Your task to perform on an android device: Search for "amazon basics triple a" on ebay, select the first entry, and add it to the cart. Image 0: 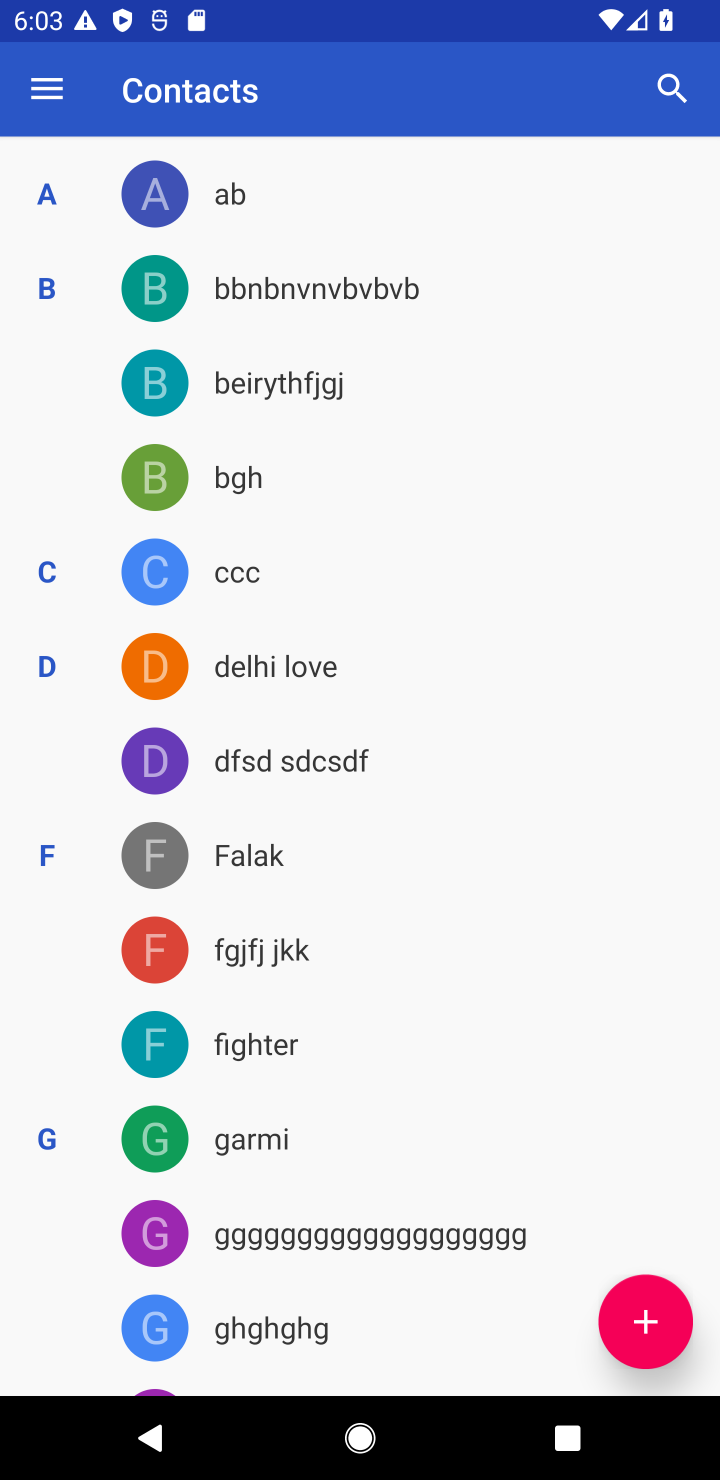
Step 0: press home button
Your task to perform on an android device: Search for "amazon basics triple a" on ebay, select the first entry, and add it to the cart. Image 1: 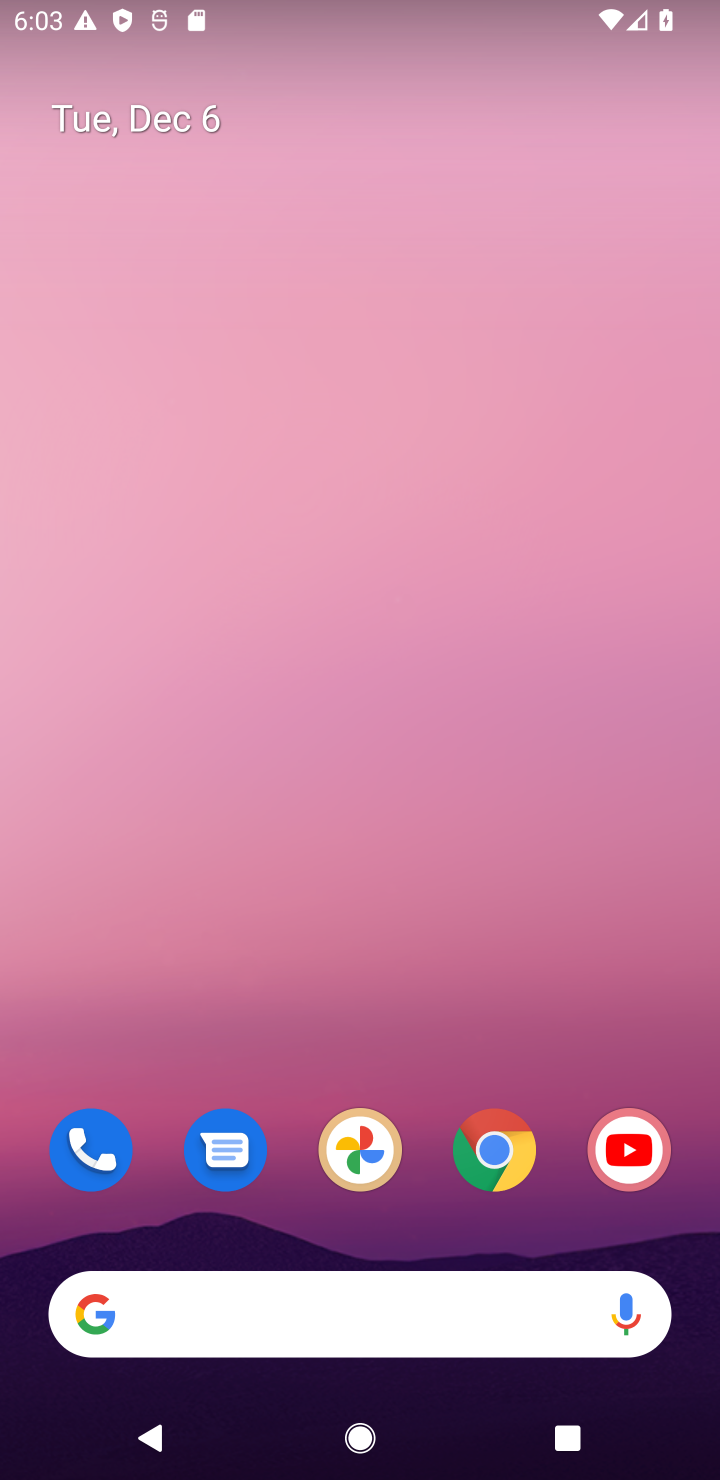
Step 1: click (478, 1157)
Your task to perform on an android device: Search for "amazon basics triple a" on ebay, select the first entry, and add it to the cart. Image 2: 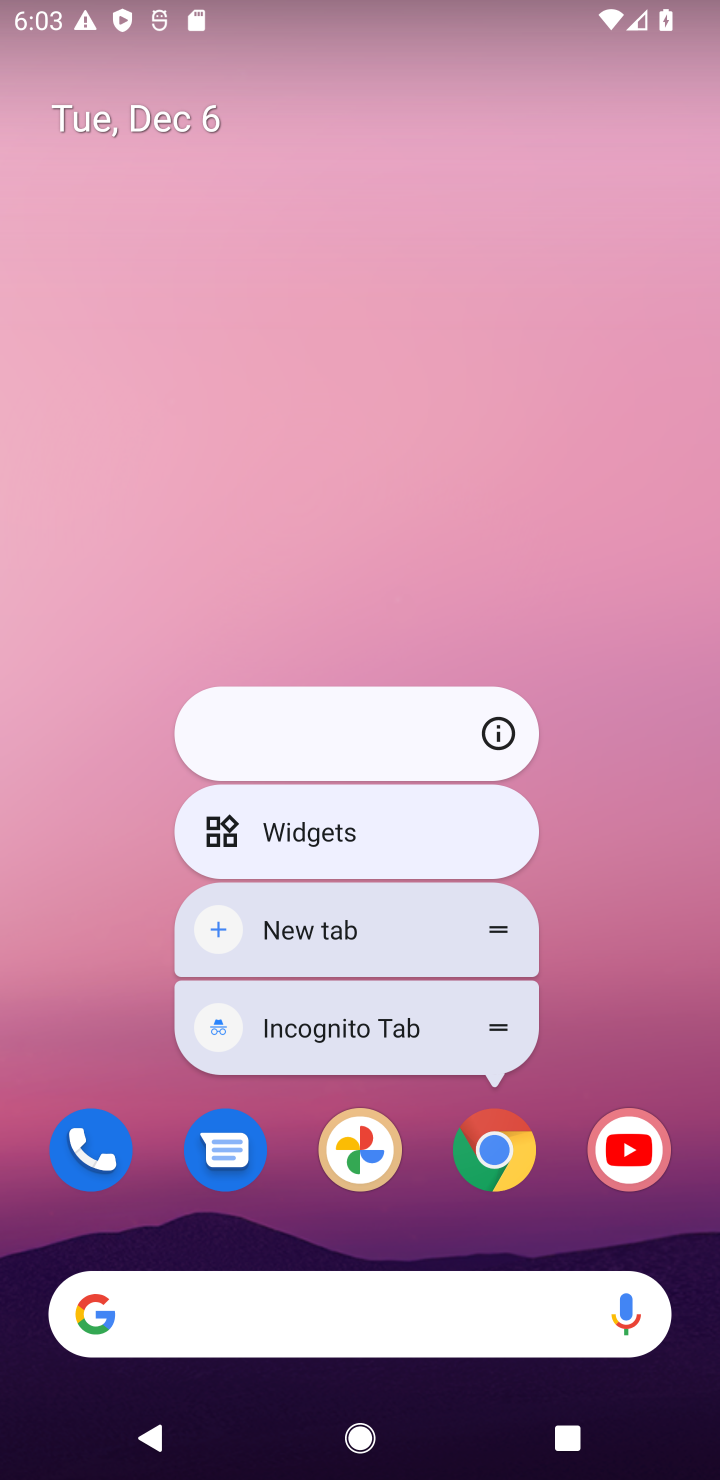
Step 2: click (492, 1162)
Your task to perform on an android device: Search for "amazon basics triple a" on ebay, select the first entry, and add it to the cart. Image 3: 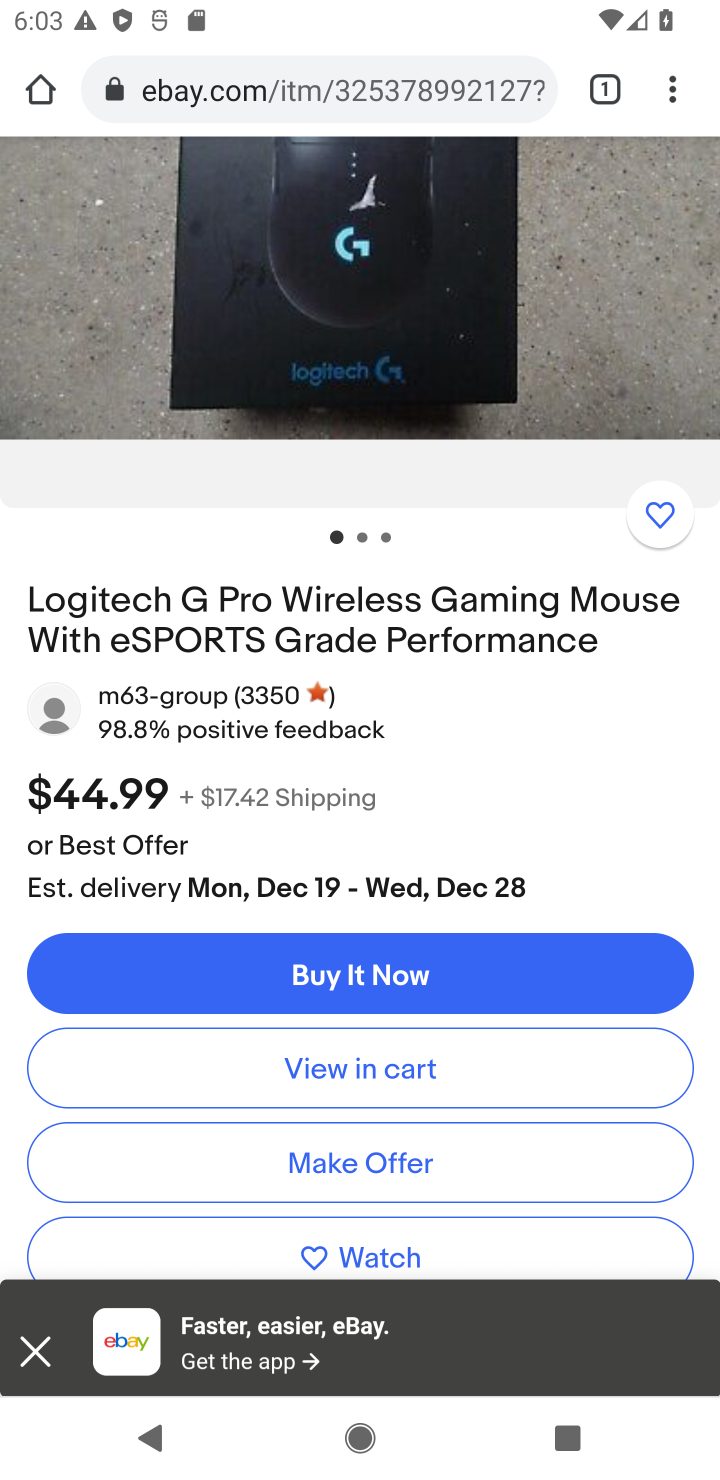
Step 3: drag from (513, 964) to (515, 1089)
Your task to perform on an android device: Search for "amazon basics triple a" on ebay, select the first entry, and add it to the cart. Image 4: 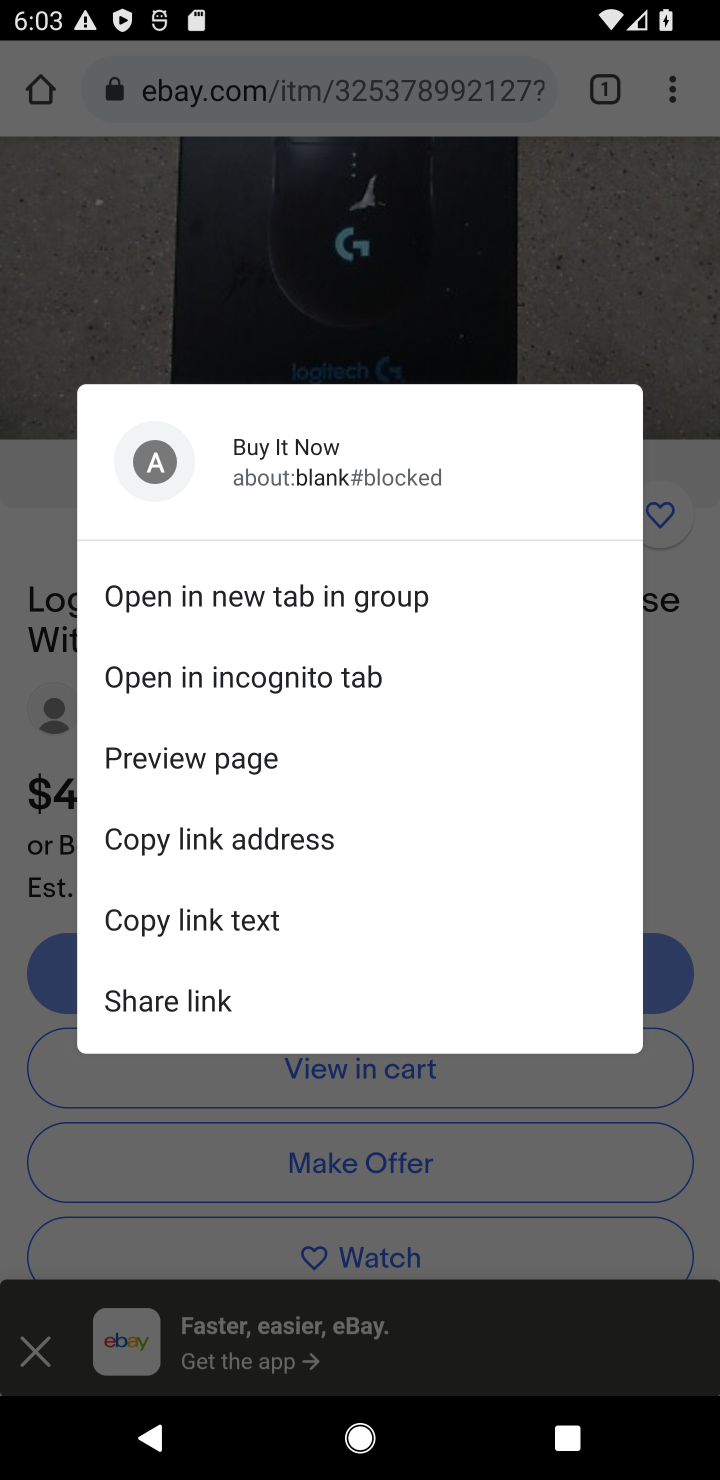
Step 4: drag from (650, 297) to (719, 739)
Your task to perform on an android device: Search for "amazon basics triple a" on ebay, select the first entry, and add it to the cart. Image 5: 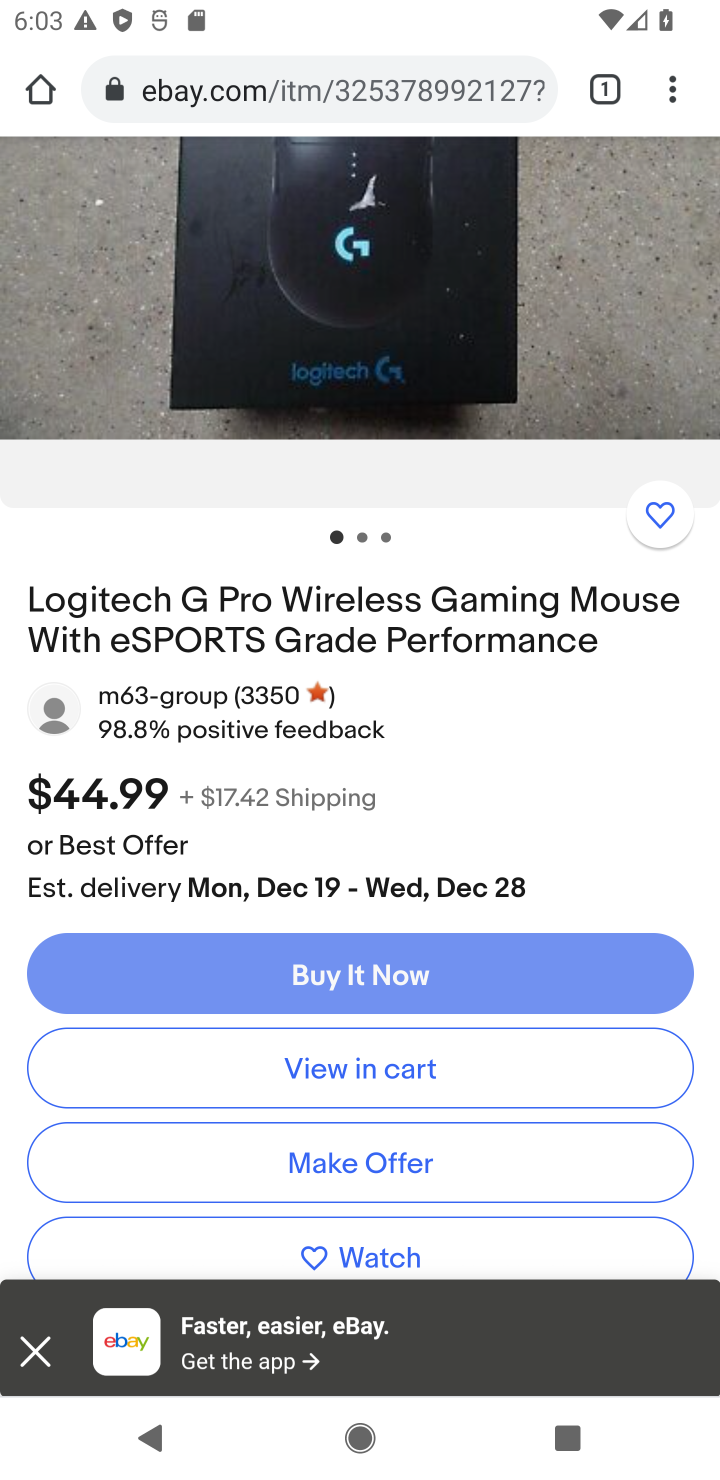
Step 5: drag from (549, 379) to (471, 858)
Your task to perform on an android device: Search for "amazon basics triple a" on ebay, select the first entry, and add it to the cart. Image 6: 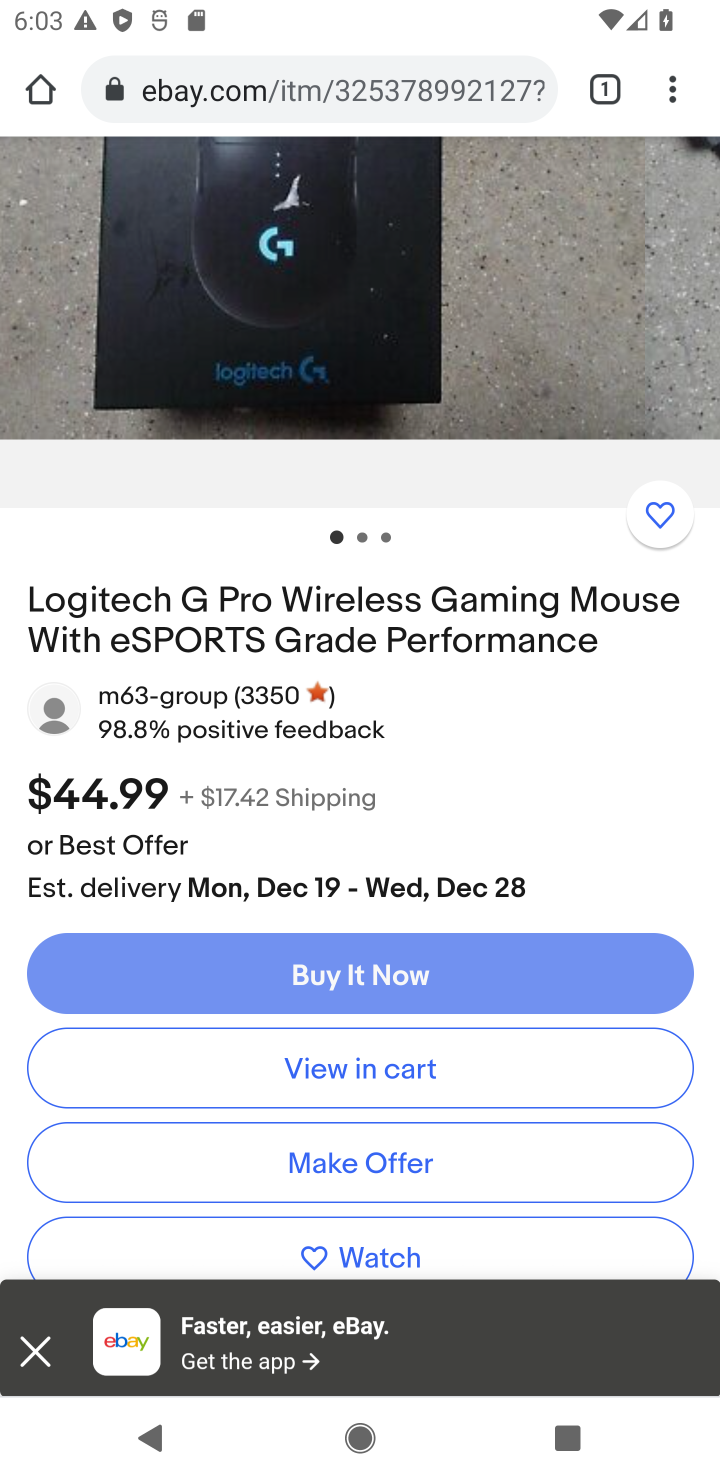
Step 6: drag from (485, 461) to (527, 1083)
Your task to perform on an android device: Search for "amazon basics triple a" on ebay, select the first entry, and add it to the cart. Image 7: 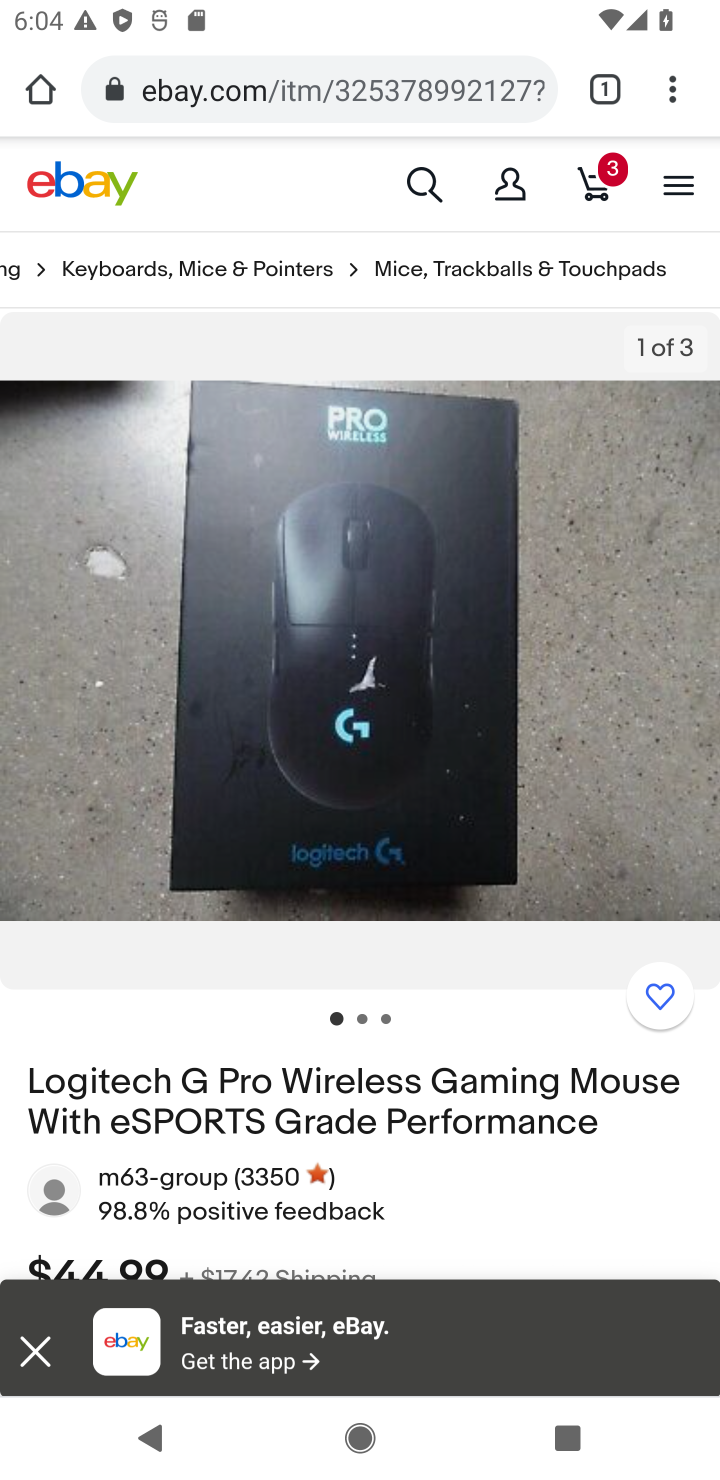
Step 7: click (413, 190)
Your task to perform on an android device: Search for "amazon basics triple a" on ebay, select the first entry, and add it to the cart. Image 8: 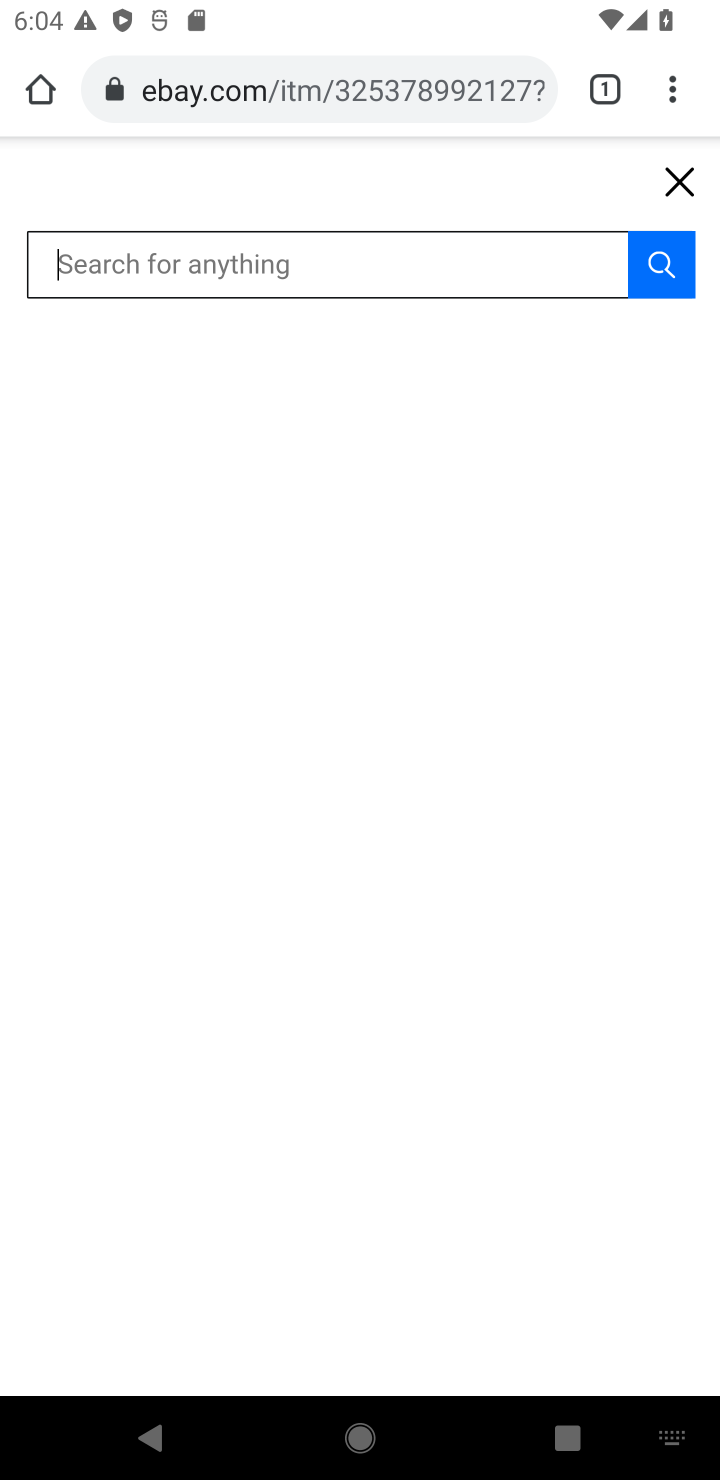
Step 8: type "amazon basics triple a"
Your task to perform on an android device: Search for "amazon basics triple a" on ebay, select the first entry, and add it to the cart. Image 9: 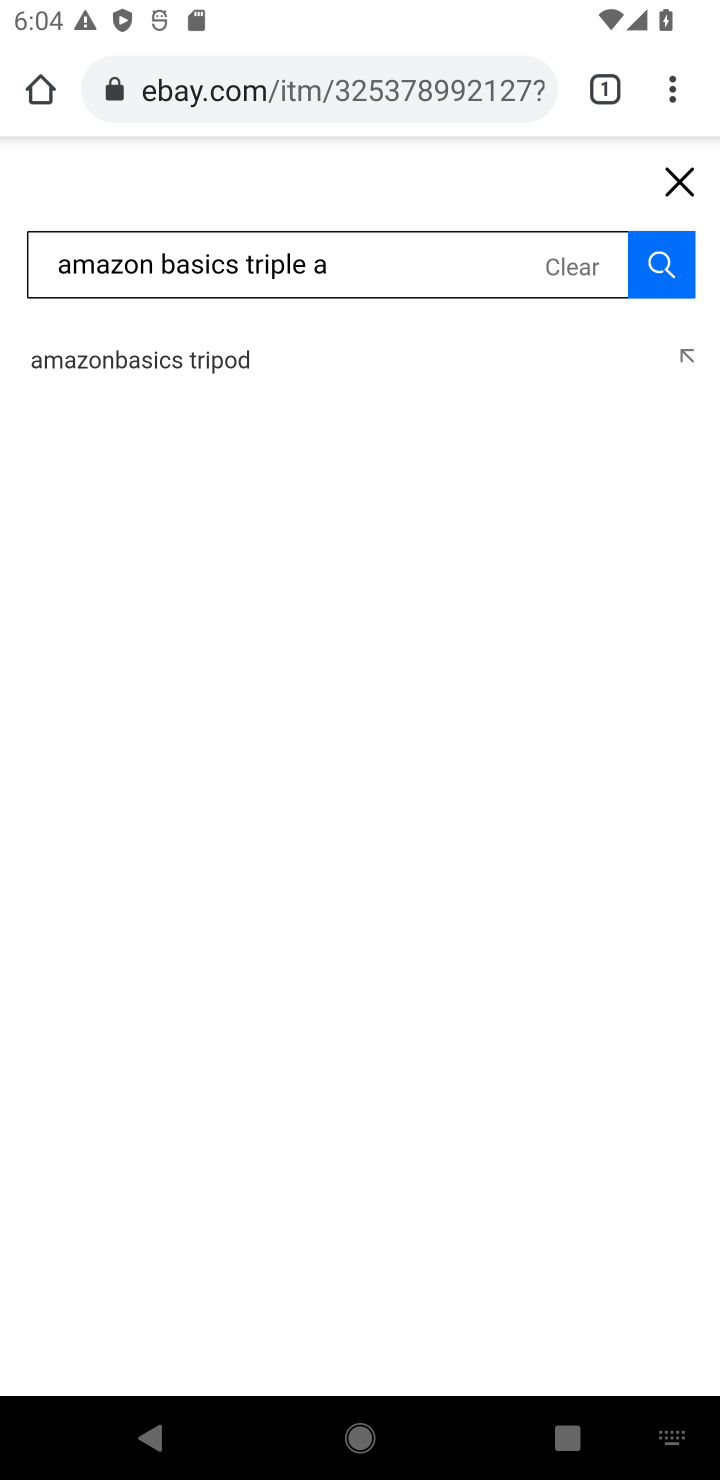
Step 9: click (656, 270)
Your task to perform on an android device: Search for "amazon basics triple a" on ebay, select the first entry, and add it to the cart. Image 10: 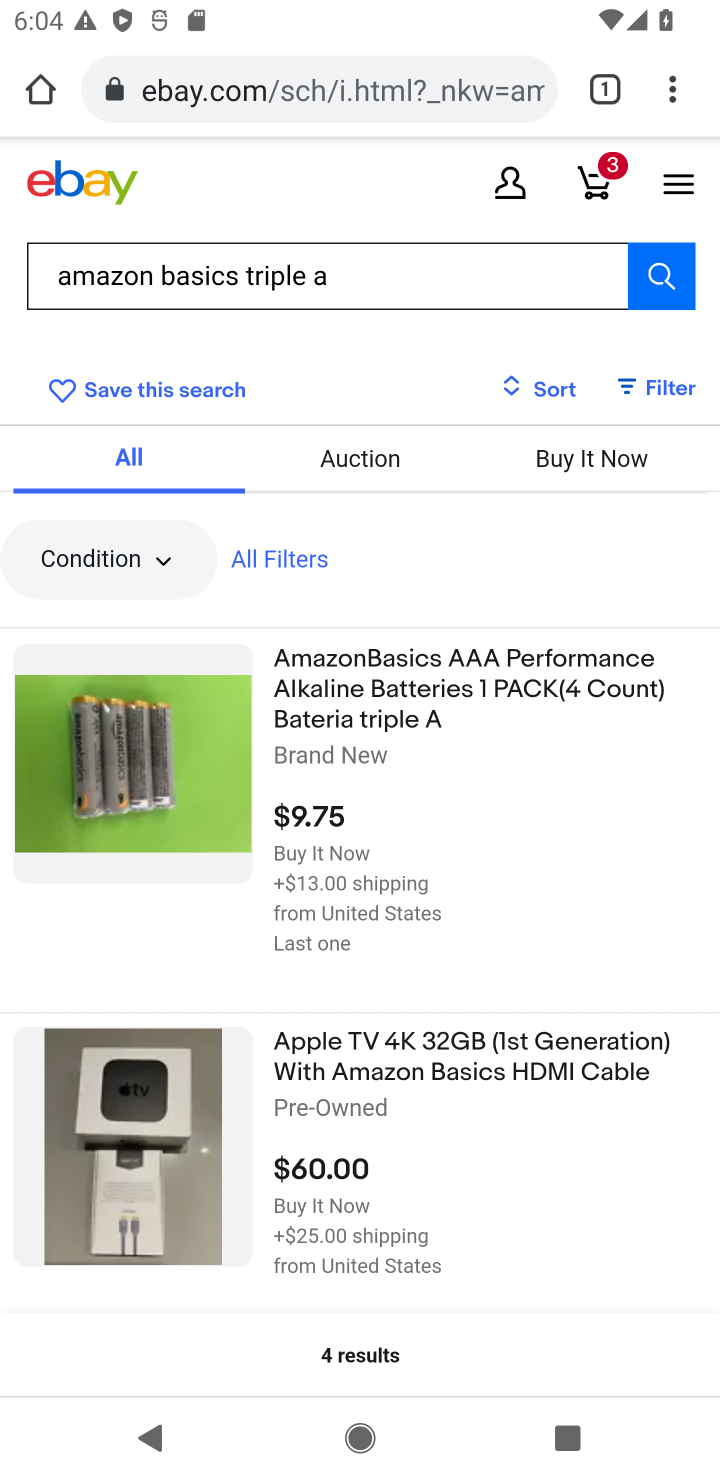
Step 10: click (292, 722)
Your task to perform on an android device: Search for "amazon basics triple a" on ebay, select the first entry, and add it to the cart. Image 11: 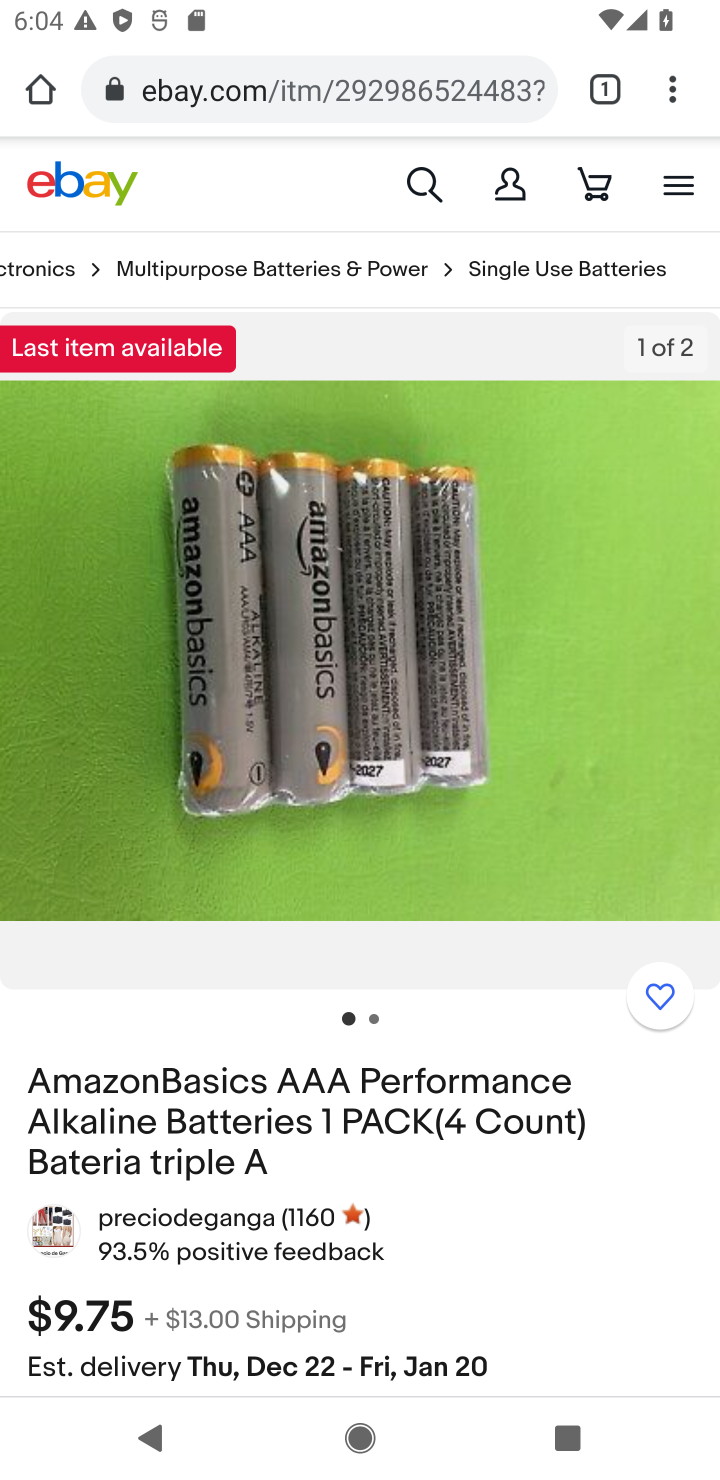
Step 11: drag from (320, 960) to (315, 497)
Your task to perform on an android device: Search for "amazon basics triple a" on ebay, select the first entry, and add it to the cart. Image 12: 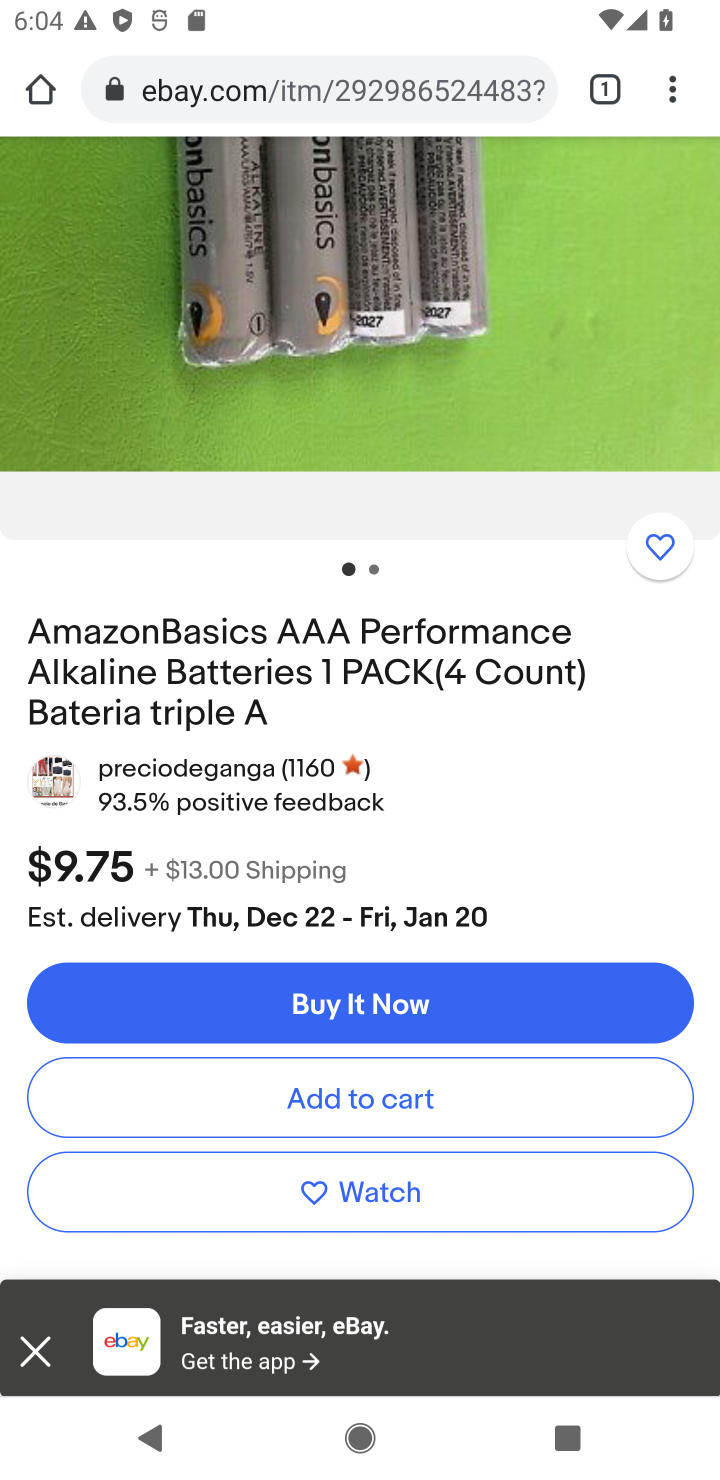
Step 12: click (306, 1095)
Your task to perform on an android device: Search for "amazon basics triple a" on ebay, select the first entry, and add it to the cart. Image 13: 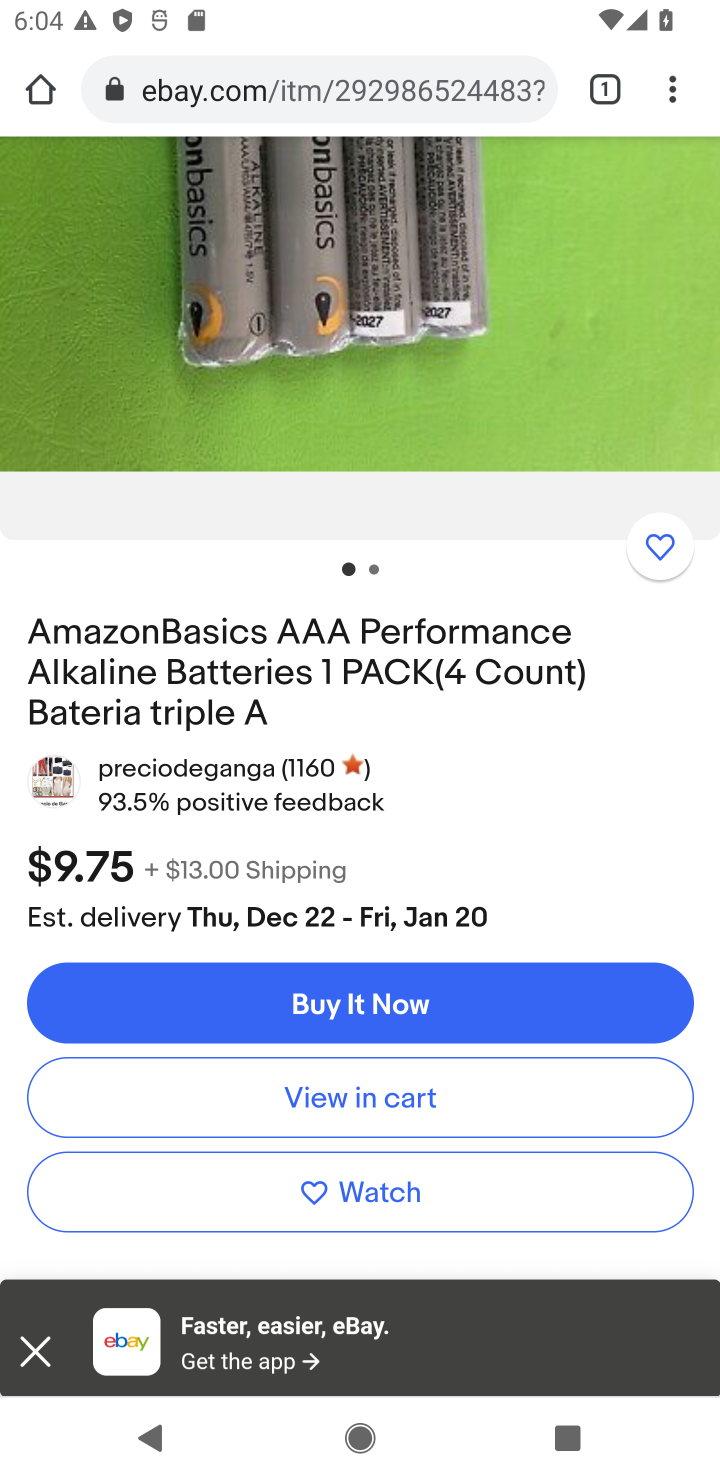
Step 13: task complete